Your task to perform on an android device: check storage Image 0: 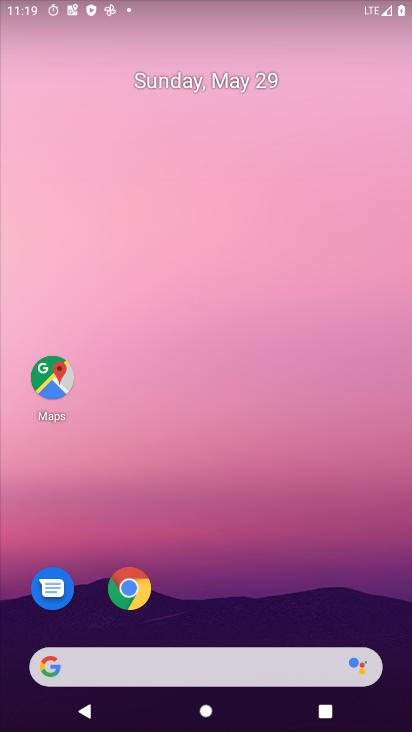
Step 0: drag from (169, 615) to (273, 137)
Your task to perform on an android device: check storage Image 1: 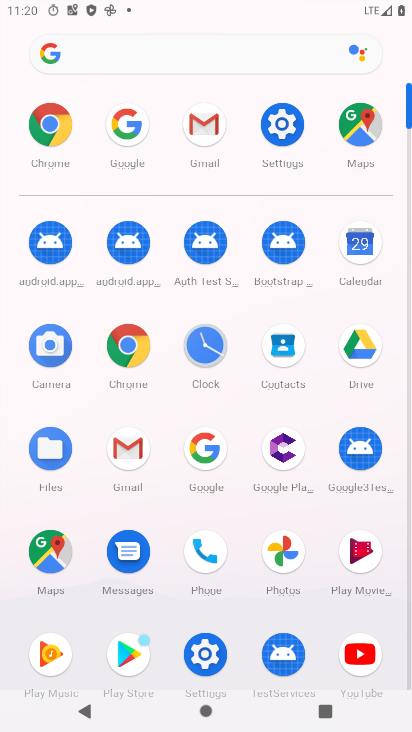
Step 1: click (205, 665)
Your task to perform on an android device: check storage Image 2: 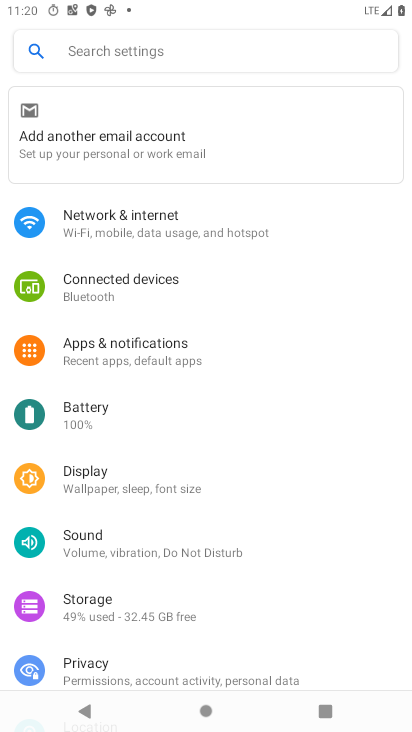
Step 2: click (130, 619)
Your task to perform on an android device: check storage Image 3: 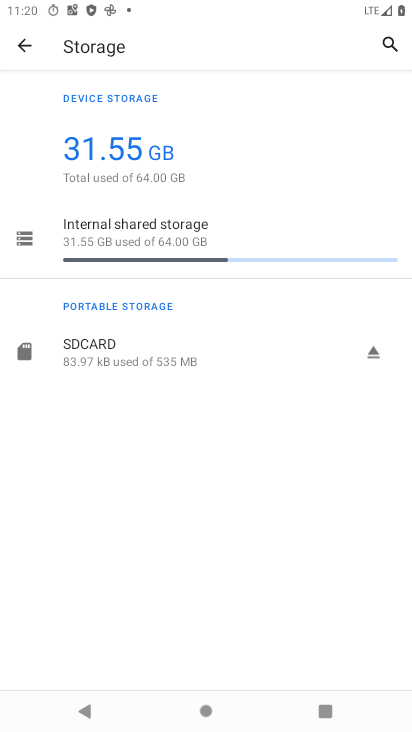
Step 3: click (193, 260)
Your task to perform on an android device: check storage Image 4: 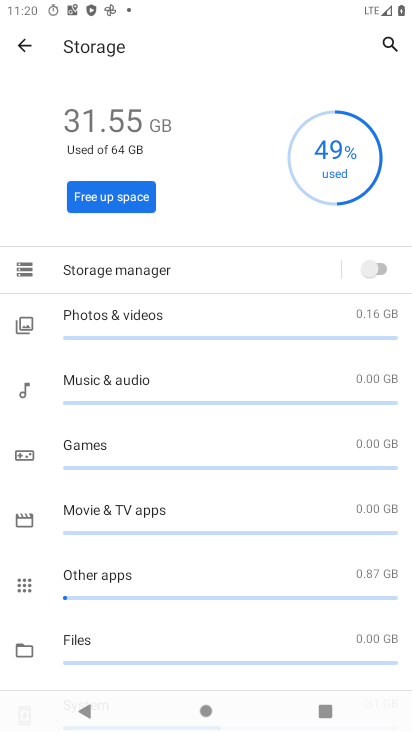
Step 4: task complete